Your task to perform on an android device: What's on my calendar tomorrow? Image 0: 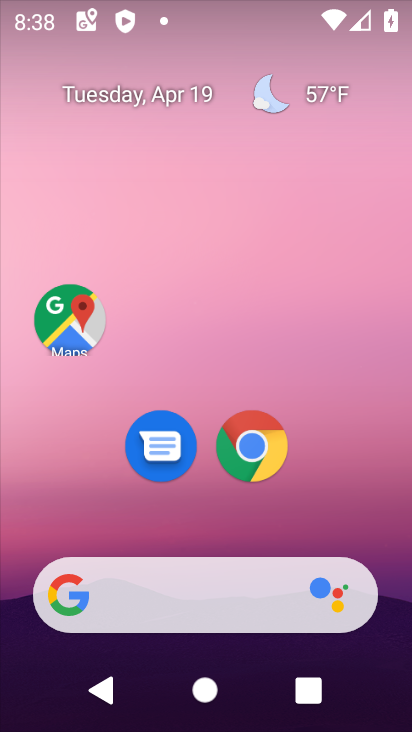
Step 0: press home button
Your task to perform on an android device: What's on my calendar tomorrow? Image 1: 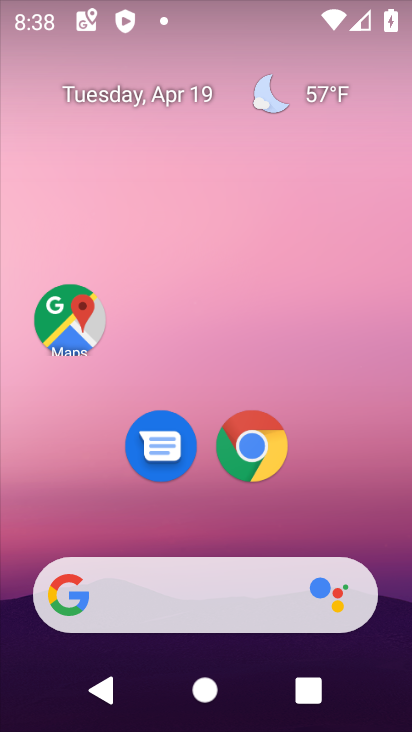
Step 1: drag from (325, 494) to (307, 104)
Your task to perform on an android device: What's on my calendar tomorrow? Image 2: 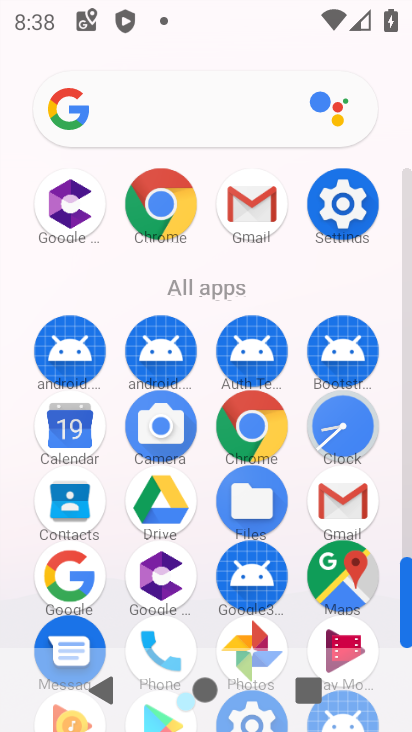
Step 2: click (62, 437)
Your task to perform on an android device: What's on my calendar tomorrow? Image 3: 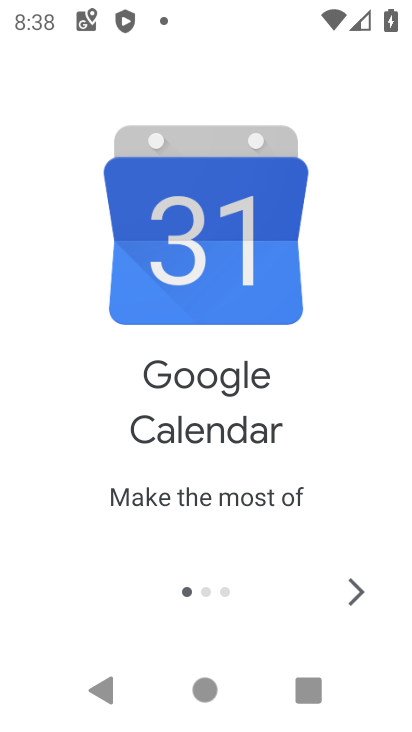
Step 3: click (350, 598)
Your task to perform on an android device: What's on my calendar tomorrow? Image 4: 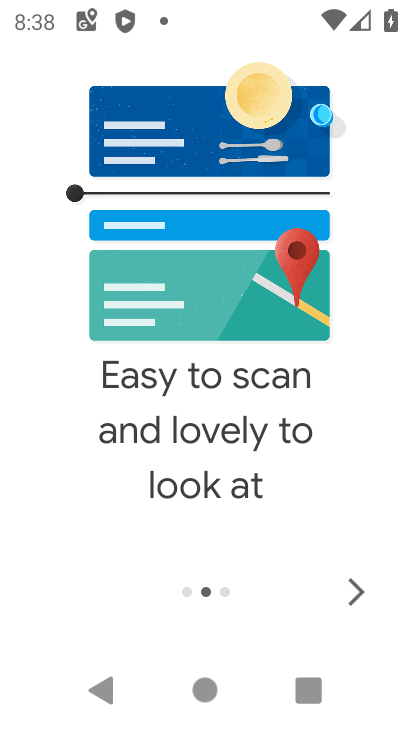
Step 4: click (352, 596)
Your task to perform on an android device: What's on my calendar tomorrow? Image 5: 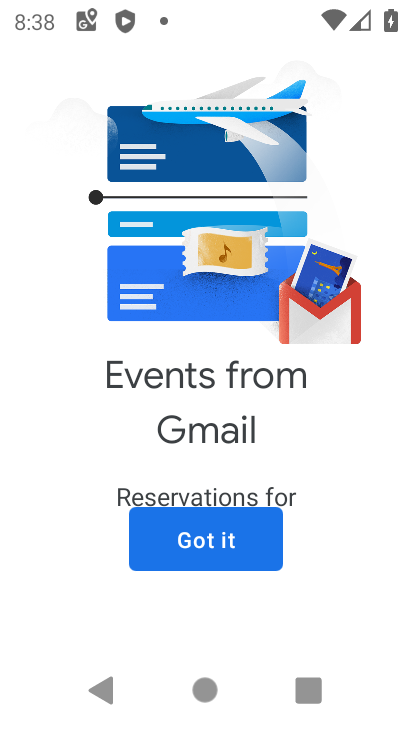
Step 5: click (200, 555)
Your task to perform on an android device: What's on my calendar tomorrow? Image 6: 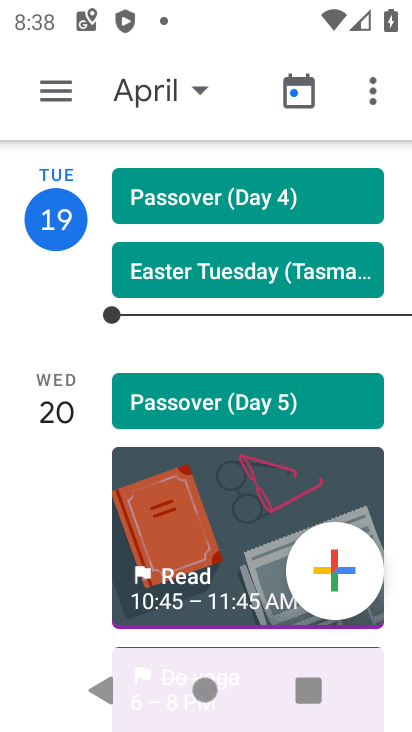
Step 6: task complete